Your task to perform on an android device: Search for sushi restaurants on Maps Image 0: 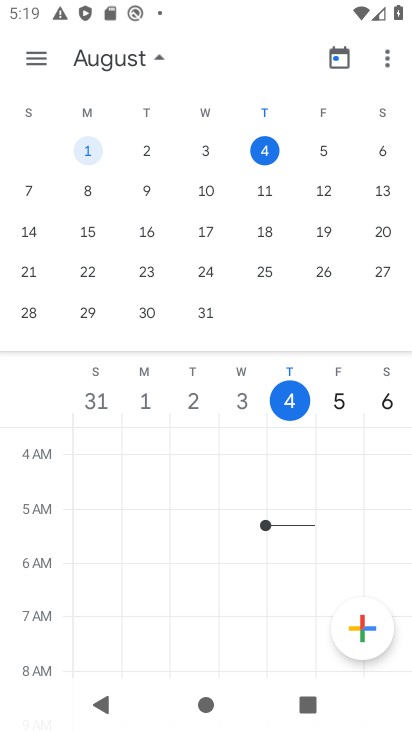
Step 0: press back button
Your task to perform on an android device: Search for sushi restaurants on Maps Image 1: 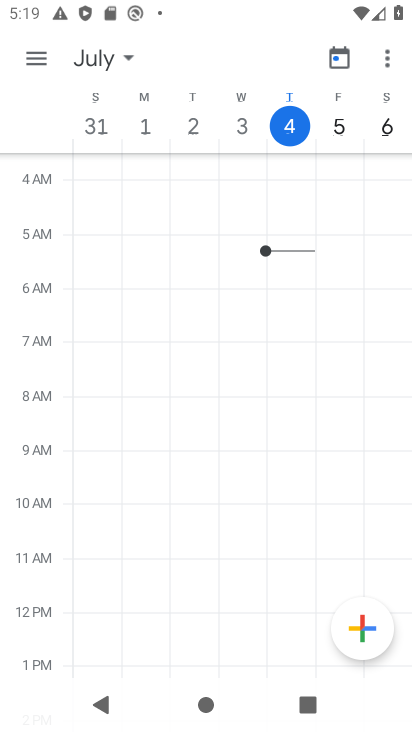
Step 1: press home button
Your task to perform on an android device: Search for sushi restaurants on Maps Image 2: 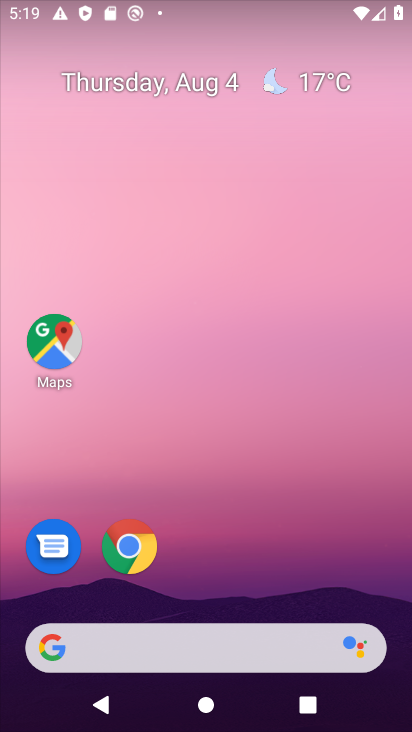
Step 2: click (51, 333)
Your task to perform on an android device: Search for sushi restaurants on Maps Image 3: 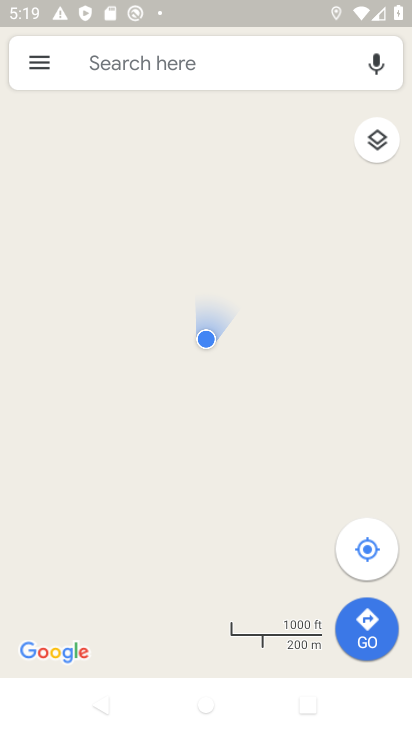
Step 3: click (186, 76)
Your task to perform on an android device: Search for sushi restaurants on Maps Image 4: 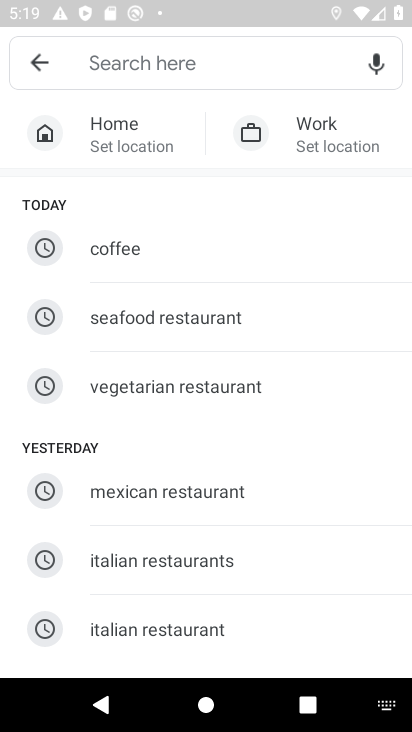
Step 4: type "sushi restaurants"
Your task to perform on an android device: Search for sushi restaurants on Maps Image 5: 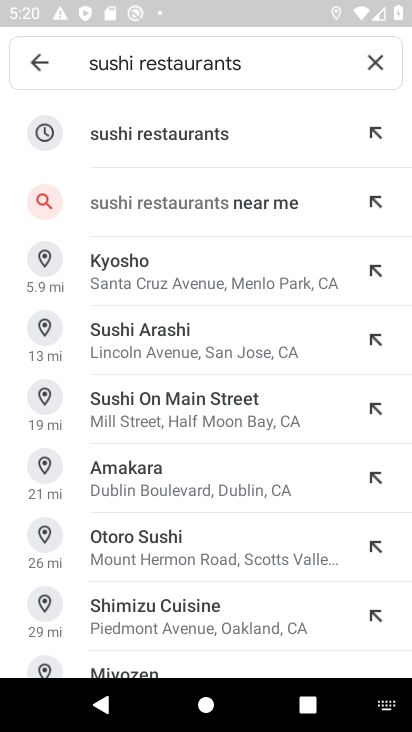
Step 5: click (122, 140)
Your task to perform on an android device: Search for sushi restaurants on Maps Image 6: 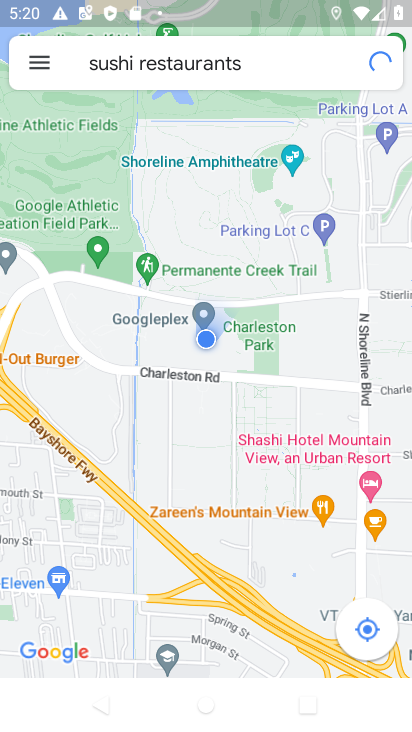
Step 6: task complete